Your task to perform on an android device: open device folders in google photos Image 0: 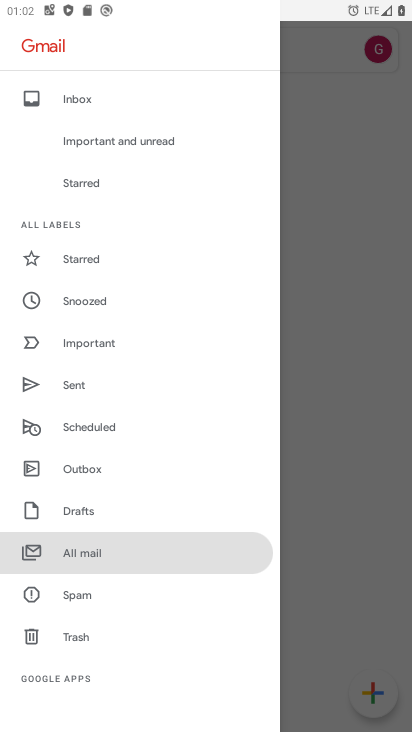
Step 0: press home button
Your task to perform on an android device: open device folders in google photos Image 1: 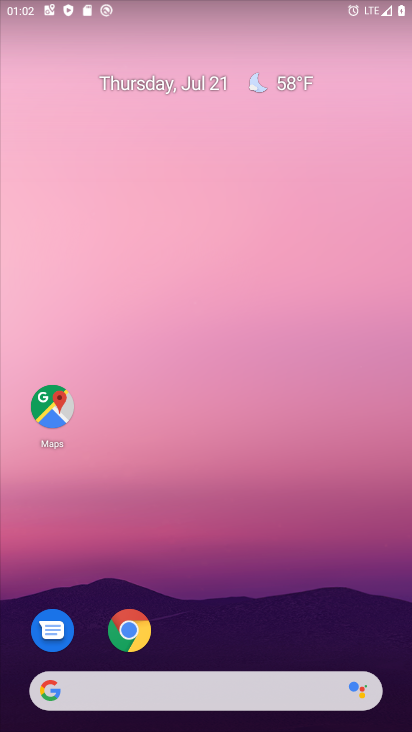
Step 1: drag from (238, 663) to (231, 146)
Your task to perform on an android device: open device folders in google photos Image 2: 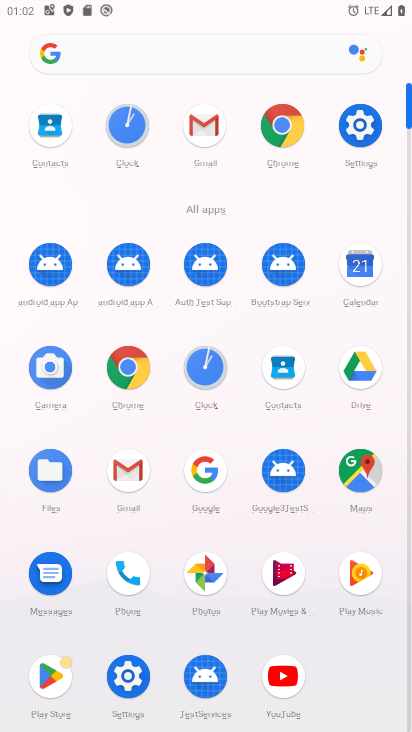
Step 2: click (196, 560)
Your task to perform on an android device: open device folders in google photos Image 3: 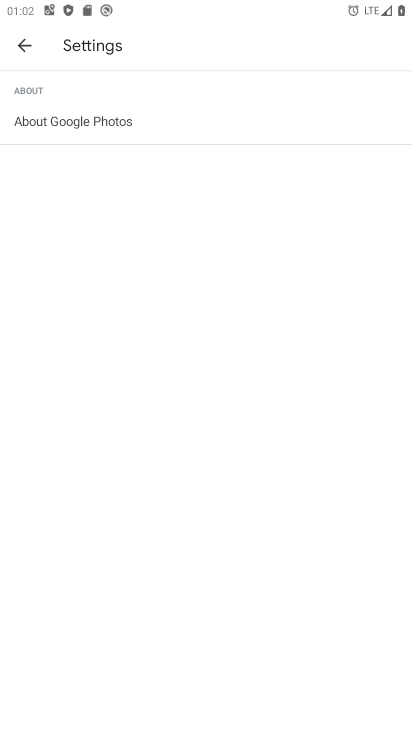
Step 3: click (18, 55)
Your task to perform on an android device: open device folders in google photos Image 4: 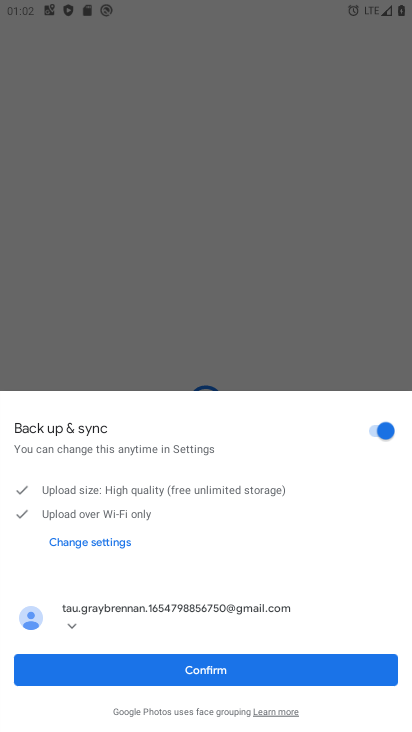
Step 4: click (222, 676)
Your task to perform on an android device: open device folders in google photos Image 5: 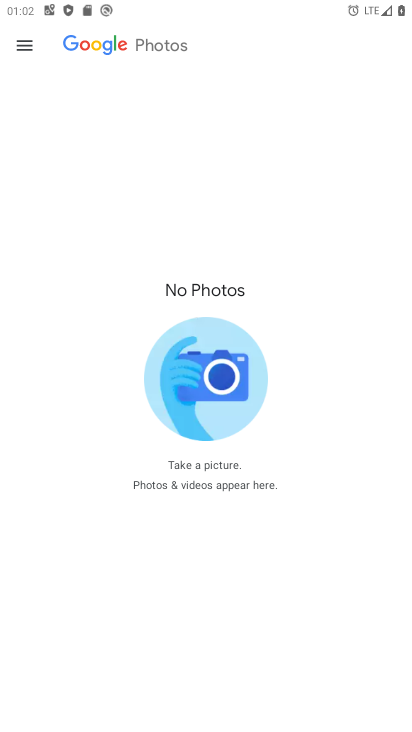
Step 5: click (38, 47)
Your task to perform on an android device: open device folders in google photos Image 6: 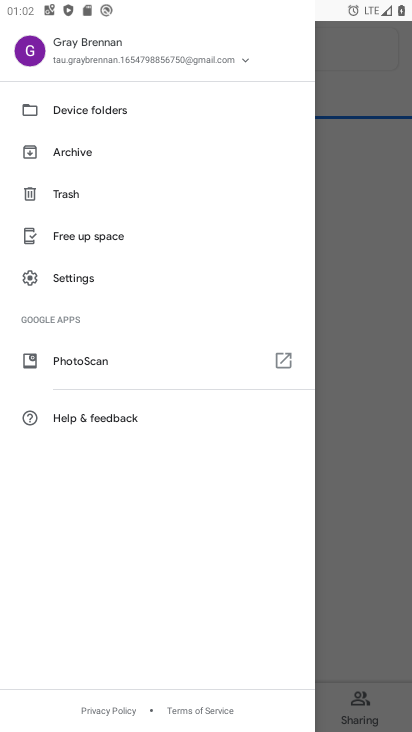
Step 6: click (179, 121)
Your task to perform on an android device: open device folders in google photos Image 7: 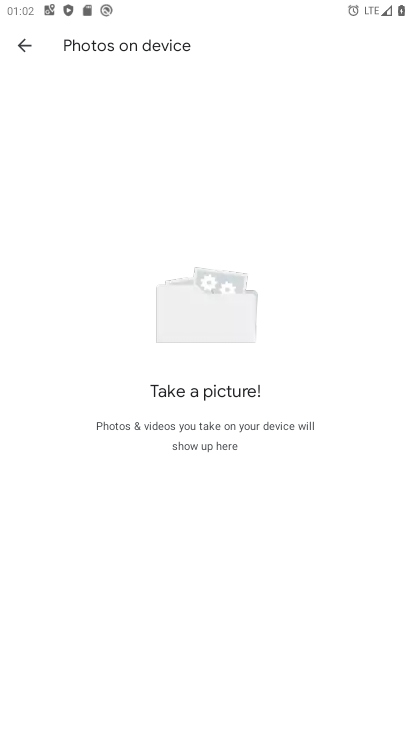
Step 7: task complete